Your task to perform on an android device: turn off smart reply in the gmail app Image 0: 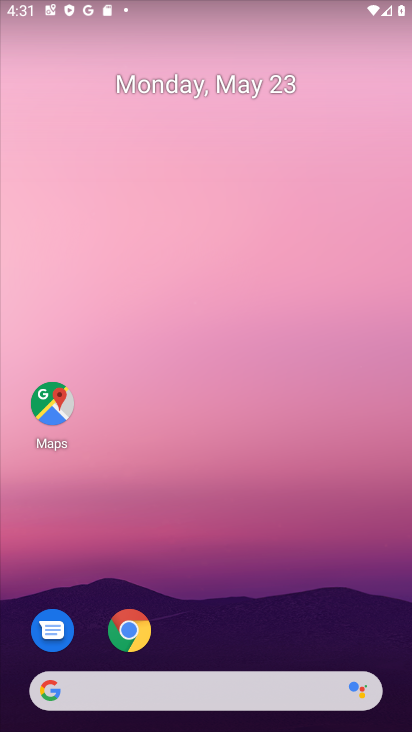
Step 0: drag from (220, 649) to (263, 9)
Your task to perform on an android device: turn off smart reply in the gmail app Image 1: 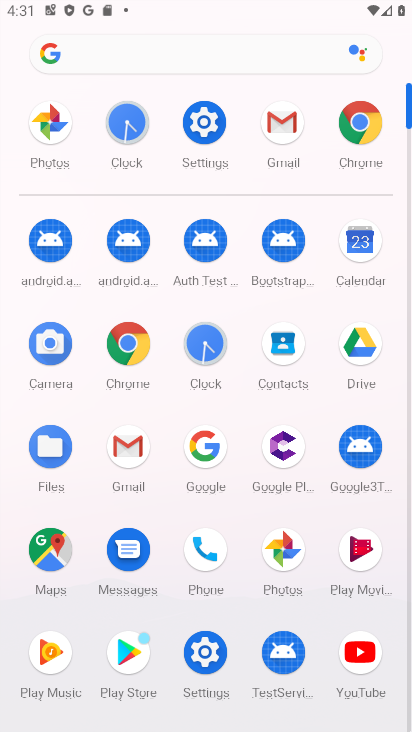
Step 1: click (129, 437)
Your task to perform on an android device: turn off smart reply in the gmail app Image 2: 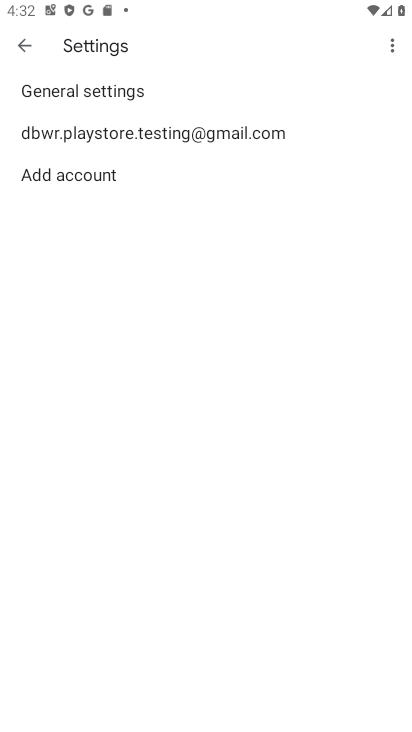
Step 2: click (293, 129)
Your task to perform on an android device: turn off smart reply in the gmail app Image 3: 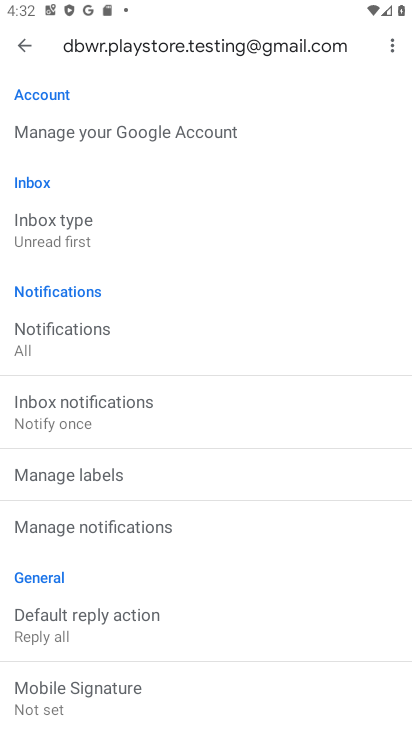
Step 3: drag from (178, 658) to (177, 136)
Your task to perform on an android device: turn off smart reply in the gmail app Image 4: 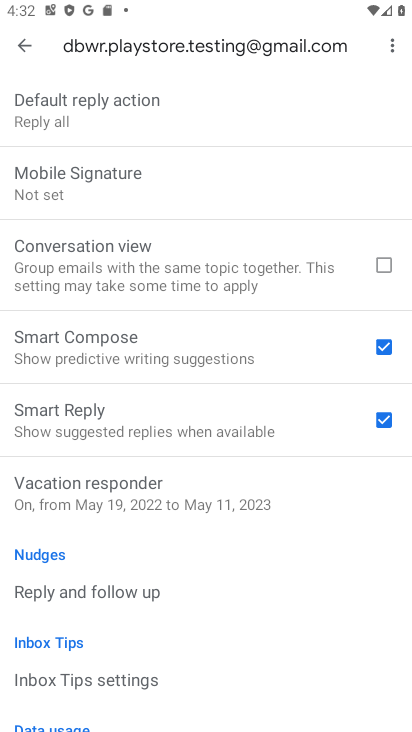
Step 4: click (383, 418)
Your task to perform on an android device: turn off smart reply in the gmail app Image 5: 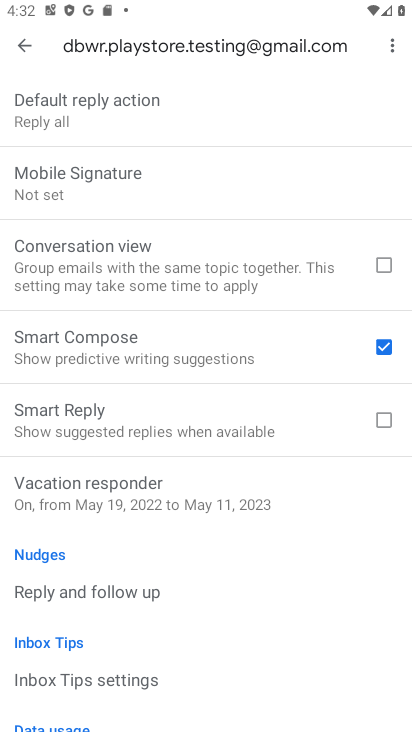
Step 5: task complete